Your task to perform on an android device: When is my next meeting? Image 0: 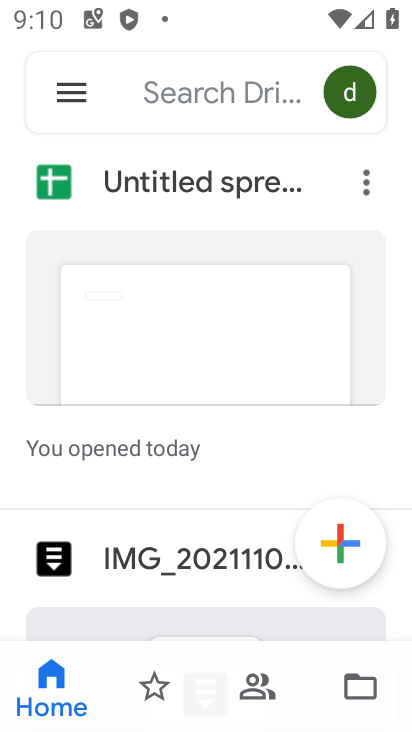
Step 0: press home button
Your task to perform on an android device: When is my next meeting? Image 1: 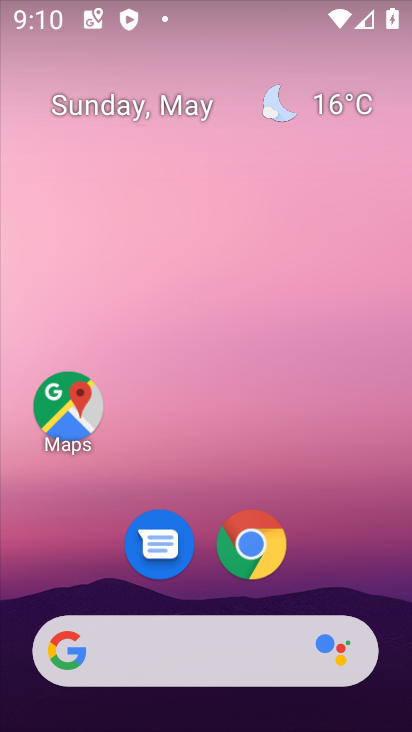
Step 1: drag from (320, 572) to (199, 142)
Your task to perform on an android device: When is my next meeting? Image 2: 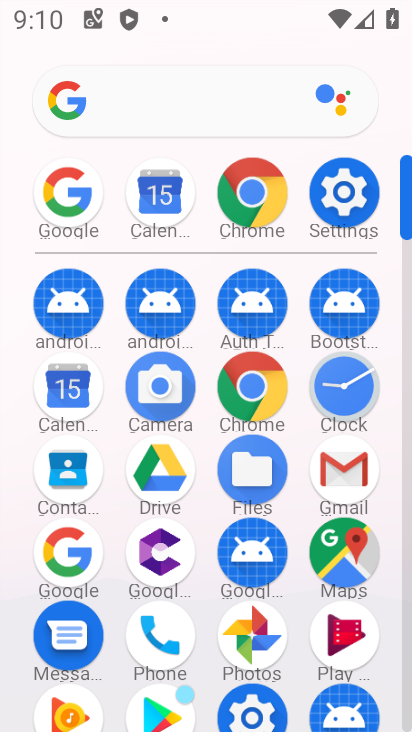
Step 2: click (71, 401)
Your task to perform on an android device: When is my next meeting? Image 3: 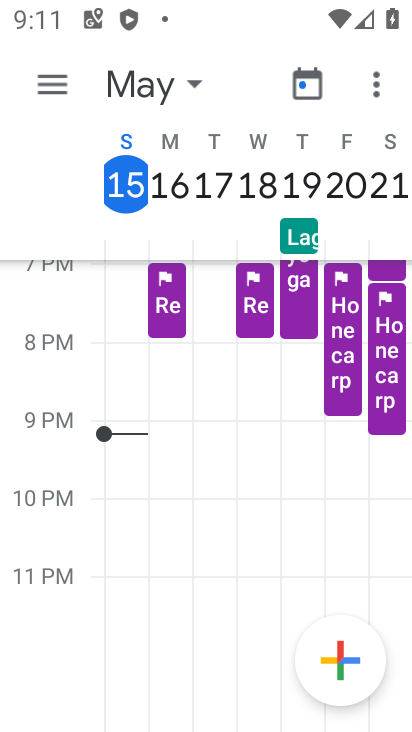
Step 3: click (52, 91)
Your task to perform on an android device: When is my next meeting? Image 4: 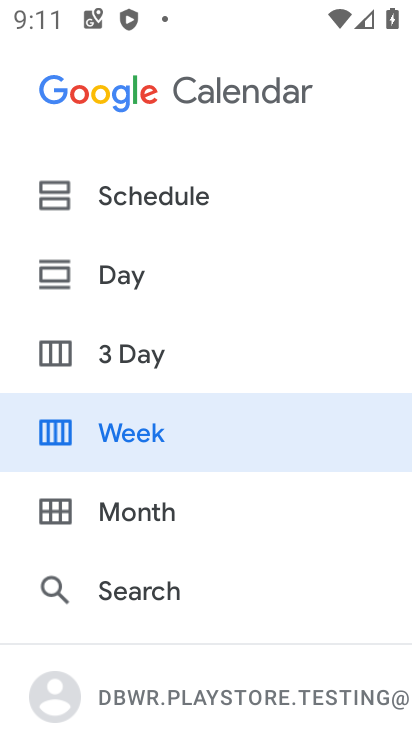
Step 4: click (111, 205)
Your task to perform on an android device: When is my next meeting? Image 5: 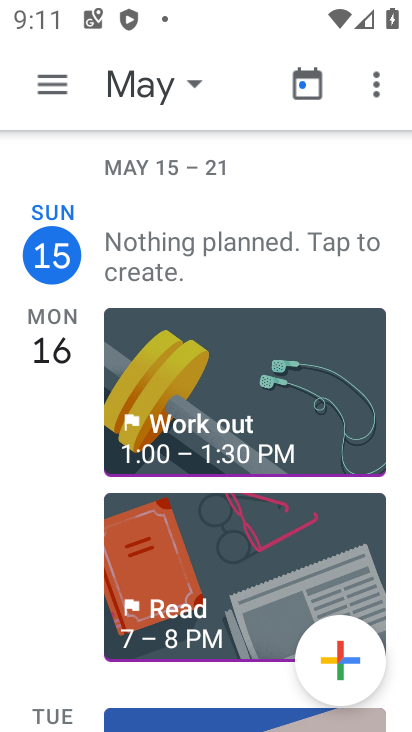
Step 5: task complete